Your task to perform on an android device: turn on the 24-hour format for clock Image 0: 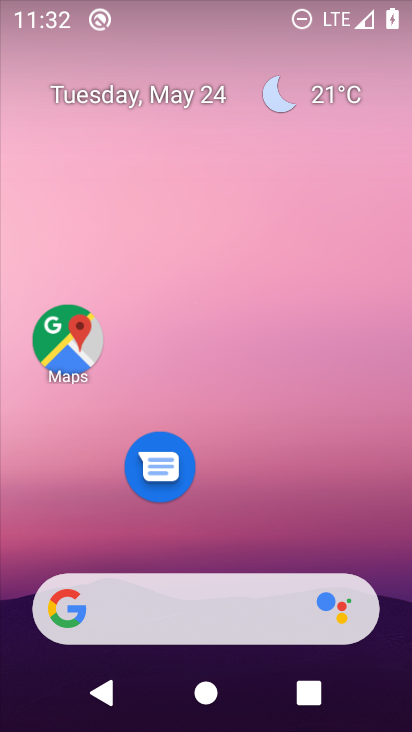
Step 0: drag from (213, 354) to (225, 199)
Your task to perform on an android device: turn on the 24-hour format for clock Image 1: 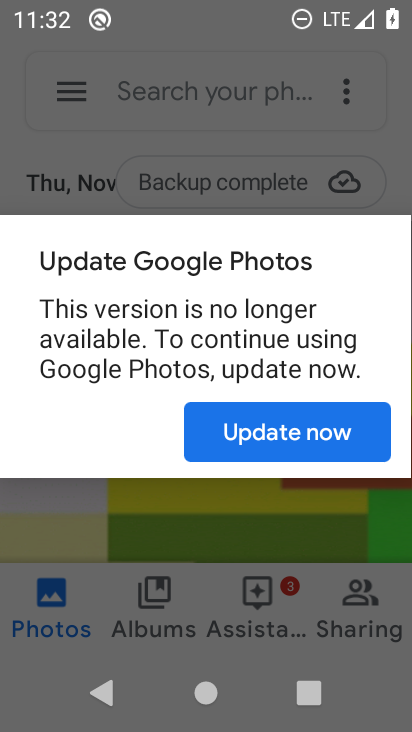
Step 1: press home button
Your task to perform on an android device: turn on the 24-hour format for clock Image 2: 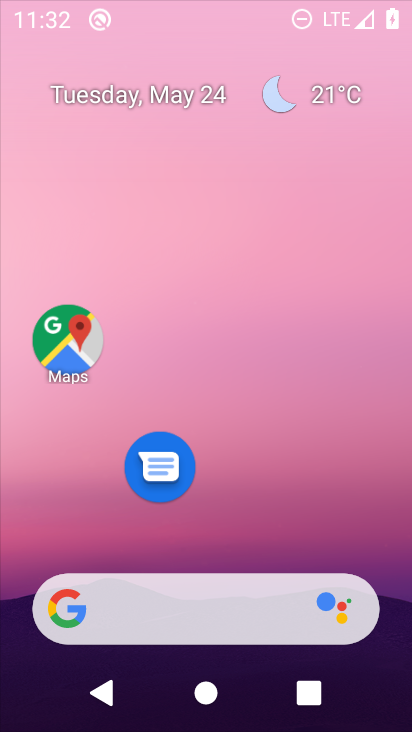
Step 2: drag from (195, 538) to (199, 247)
Your task to perform on an android device: turn on the 24-hour format for clock Image 3: 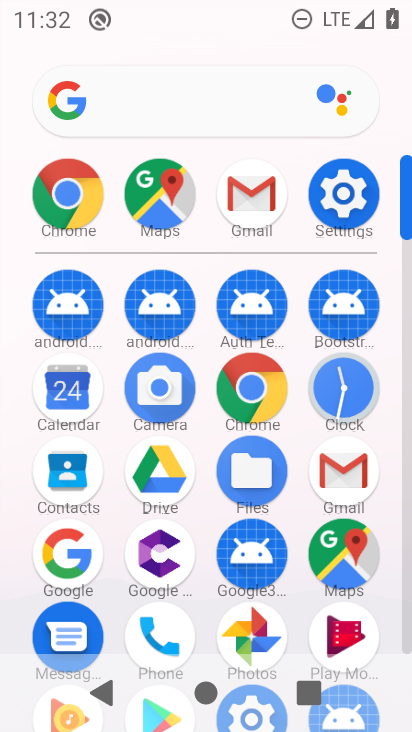
Step 3: click (341, 389)
Your task to perform on an android device: turn on the 24-hour format for clock Image 4: 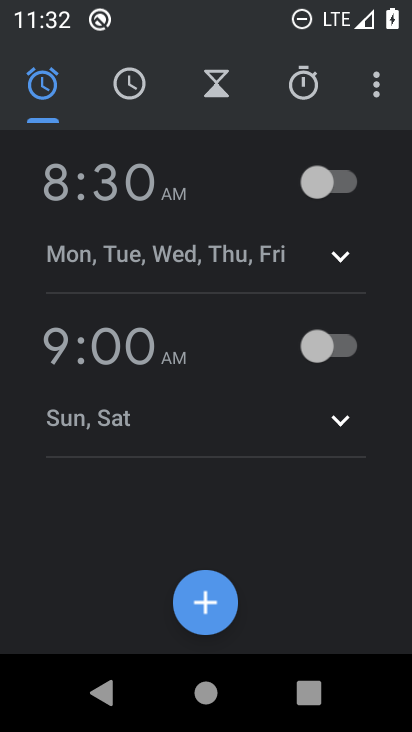
Step 4: click (369, 91)
Your task to perform on an android device: turn on the 24-hour format for clock Image 5: 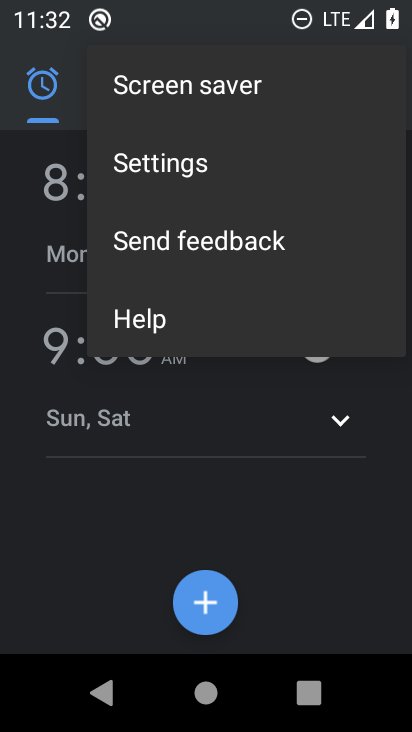
Step 5: click (202, 170)
Your task to perform on an android device: turn on the 24-hour format for clock Image 6: 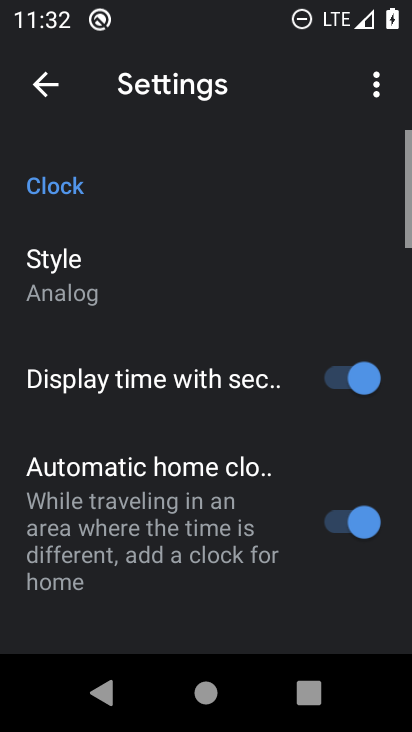
Step 6: drag from (154, 481) to (203, 35)
Your task to perform on an android device: turn on the 24-hour format for clock Image 7: 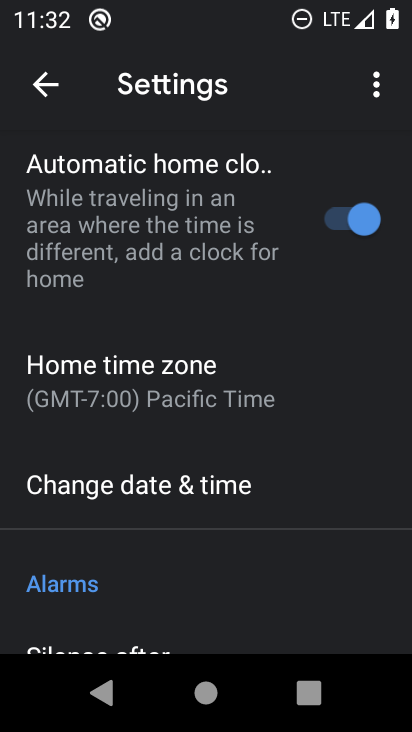
Step 7: click (179, 483)
Your task to perform on an android device: turn on the 24-hour format for clock Image 8: 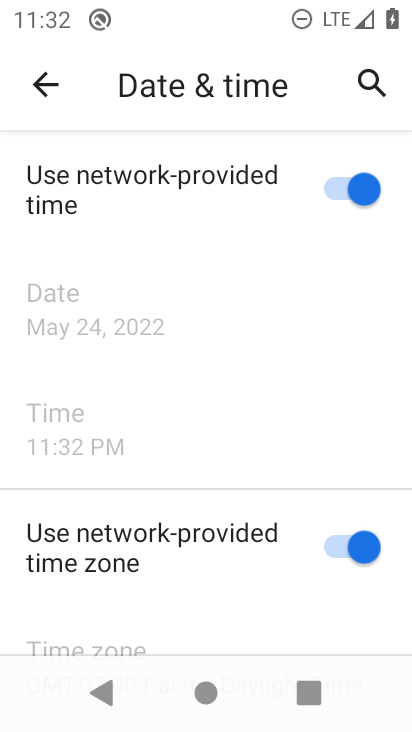
Step 8: drag from (222, 588) to (224, 93)
Your task to perform on an android device: turn on the 24-hour format for clock Image 9: 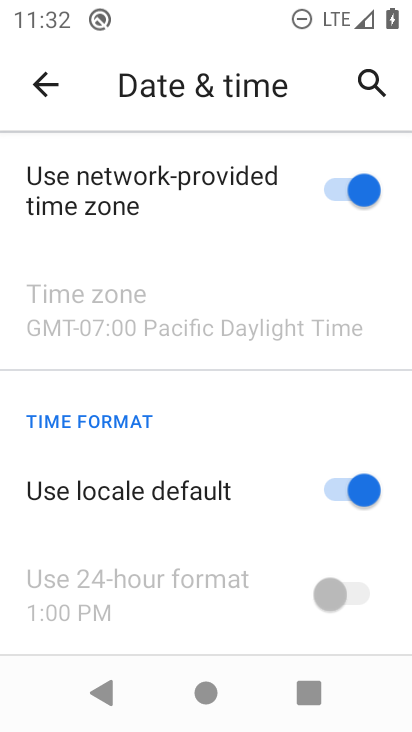
Step 9: click (357, 491)
Your task to perform on an android device: turn on the 24-hour format for clock Image 10: 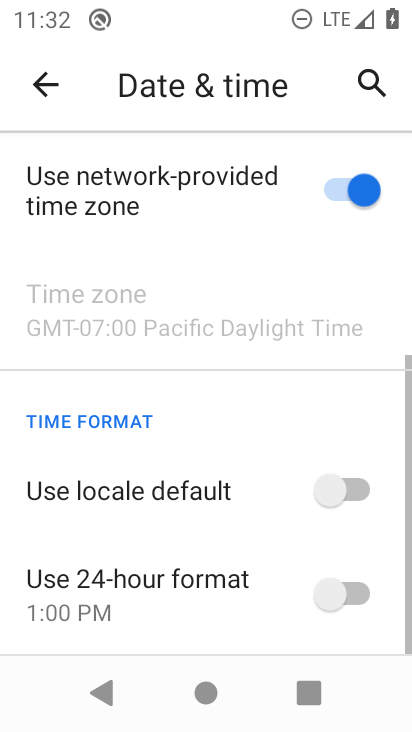
Step 10: click (339, 600)
Your task to perform on an android device: turn on the 24-hour format for clock Image 11: 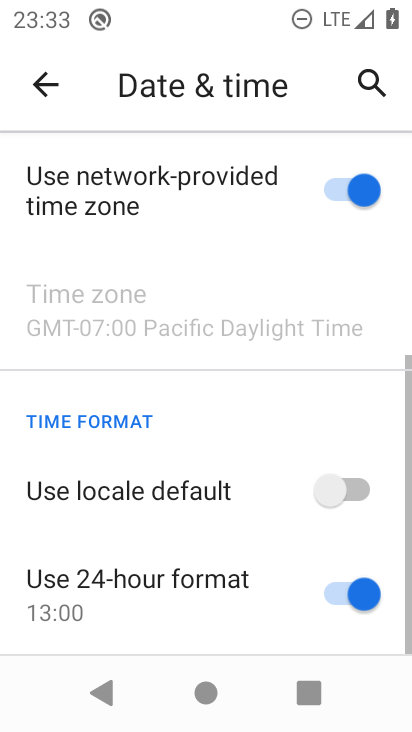
Step 11: task complete